Your task to perform on an android device: turn on location history Image 0: 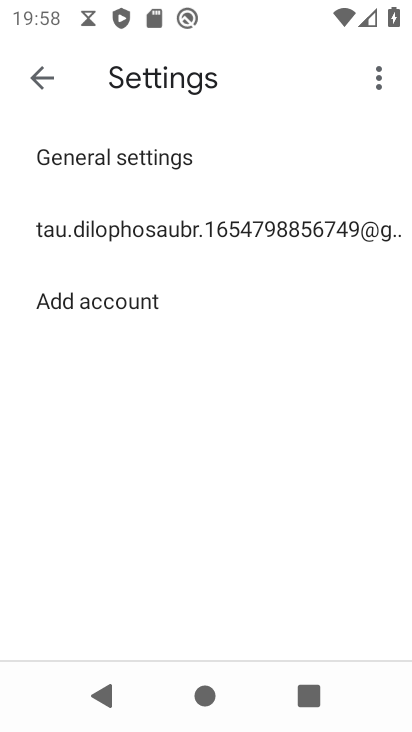
Step 0: press home button
Your task to perform on an android device: turn on location history Image 1: 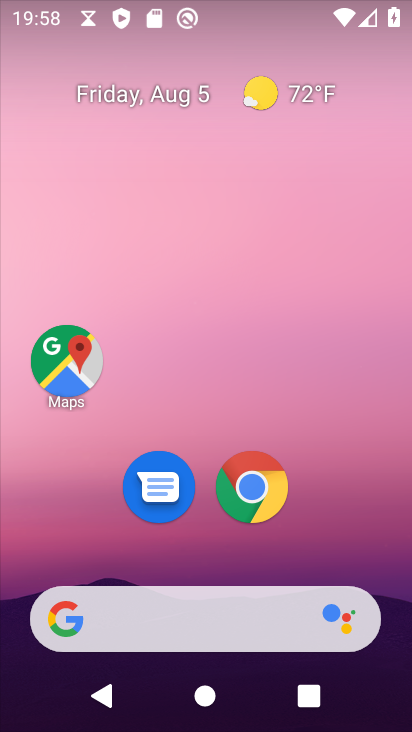
Step 1: click (59, 358)
Your task to perform on an android device: turn on location history Image 2: 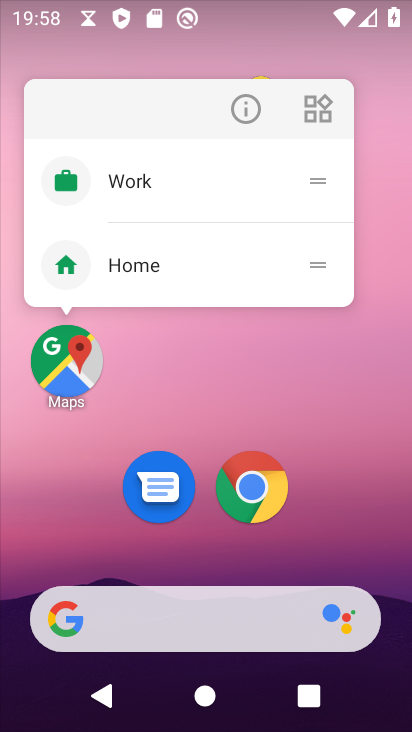
Step 2: click (63, 356)
Your task to perform on an android device: turn on location history Image 3: 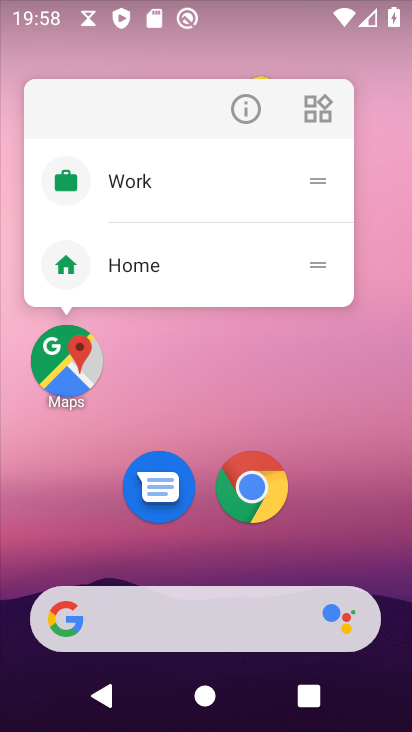
Step 3: click (66, 374)
Your task to perform on an android device: turn on location history Image 4: 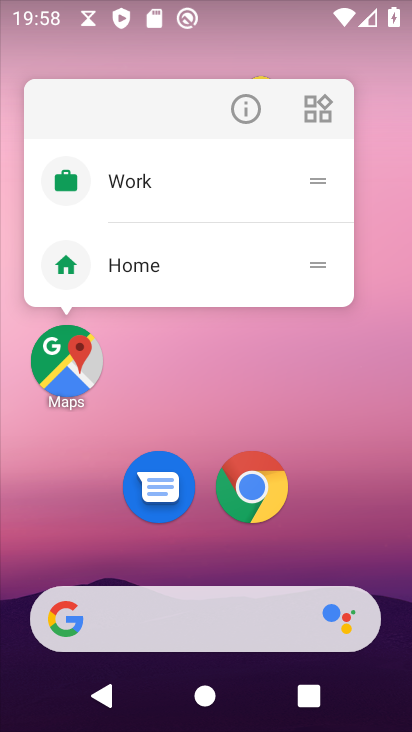
Step 4: click (66, 376)
Your task to perform on an android device: turn on location history Image 5: 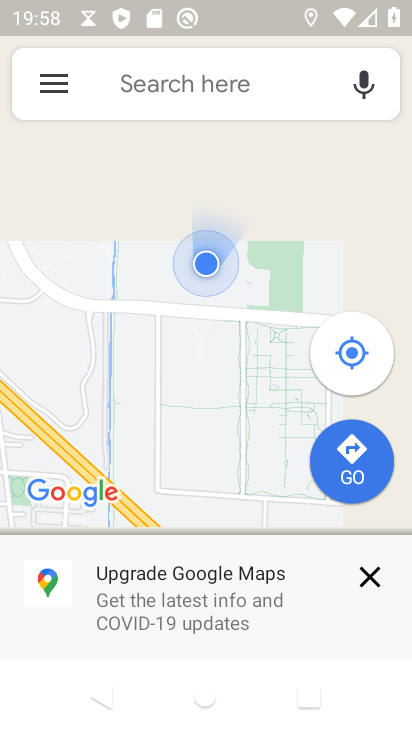
Step 5: click (57, 76)
Your task to perform on an android device: turn on location history Image 6: 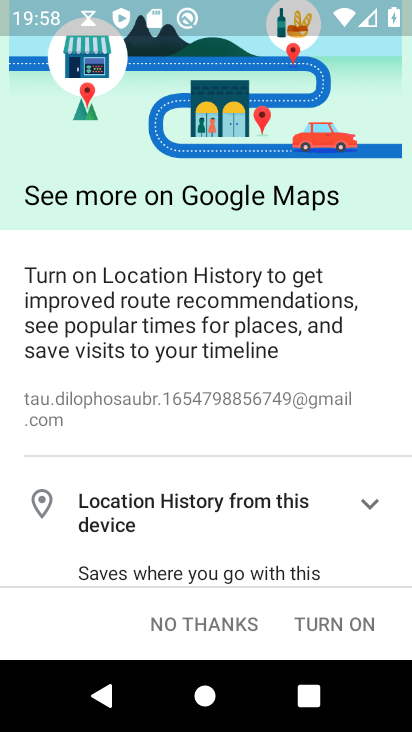
Step 6: click (213, 621)
Your task to perform on an android device: turn on location history Image 7: 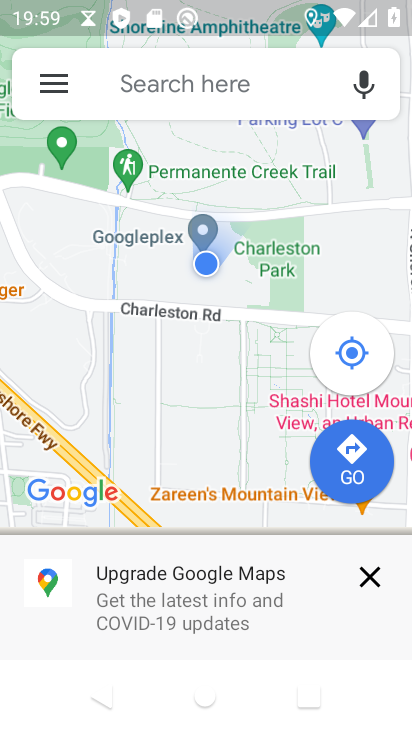
Step 7: click (57, 82)
Your task to perform on an android device: turn on location history Image 8: 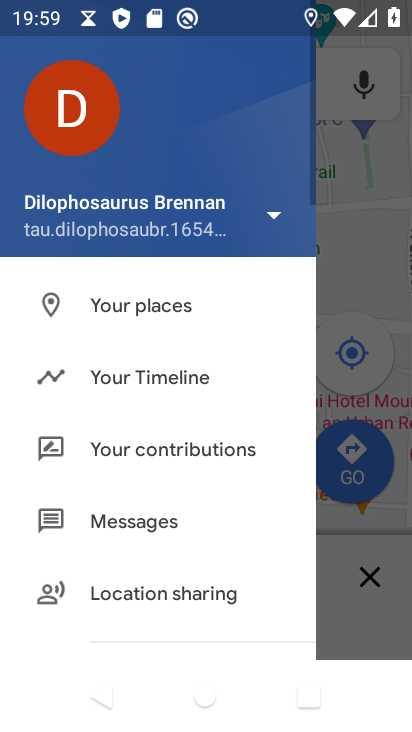
Step 8: click (178, 370)
Your task to perform on an android device: turn on location history Image 9: 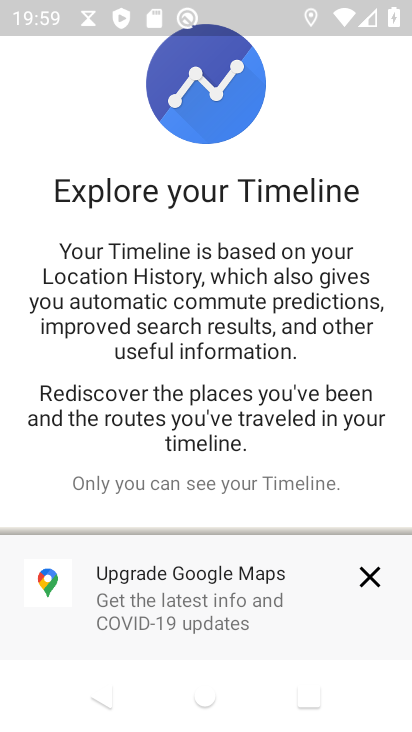
Step 9: click (367, 566)
Your task to perform on an android device: turn on location history Image 10: 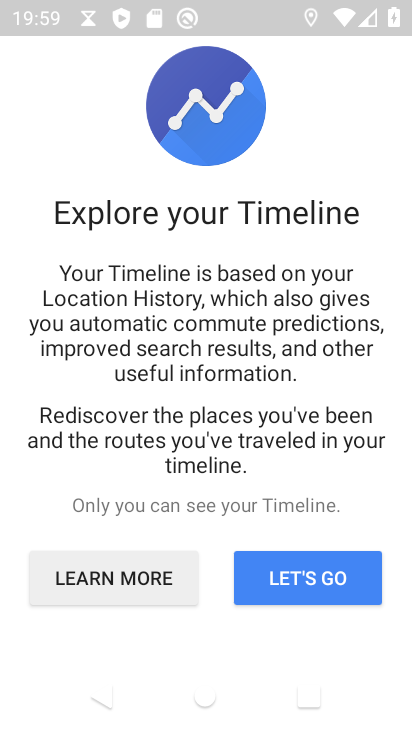
Step 10: click (297, 580)
Your task to perform on an android device: turn on location history Image 11: 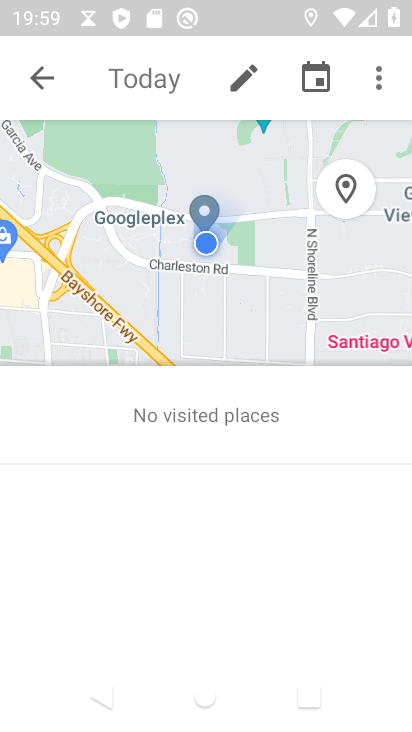
Step 11: click (378, 82)
Your task to perform on an android device: turn on location history Image 12: 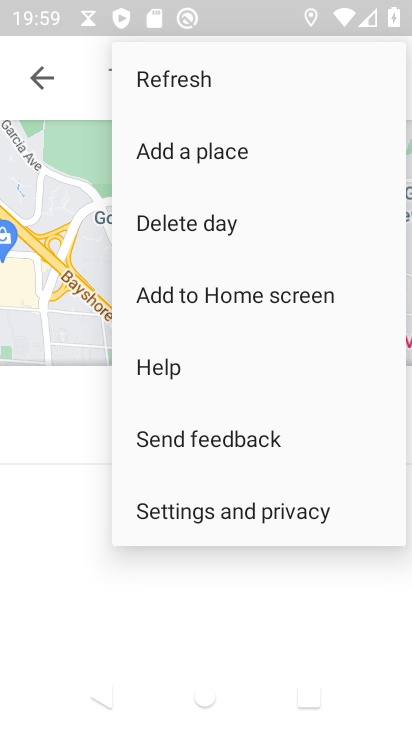
Step 12: click (253, 511)
Your task to perform on an android device: turn on location history Image 13: 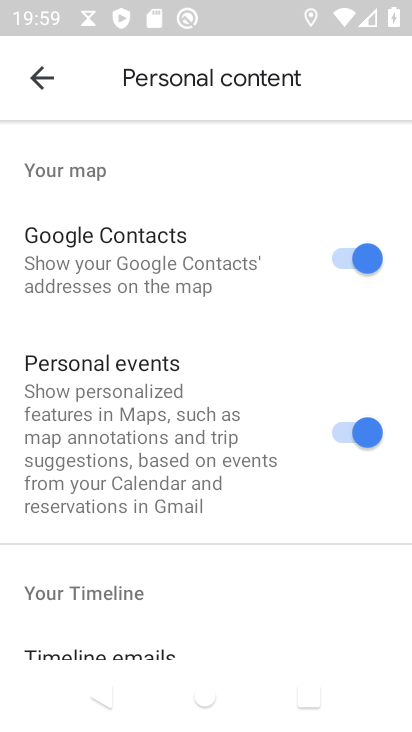
Step 13: drag from (208, 562) to (276, 85)
Your task to perform on an android device: turn on location history Image 14: 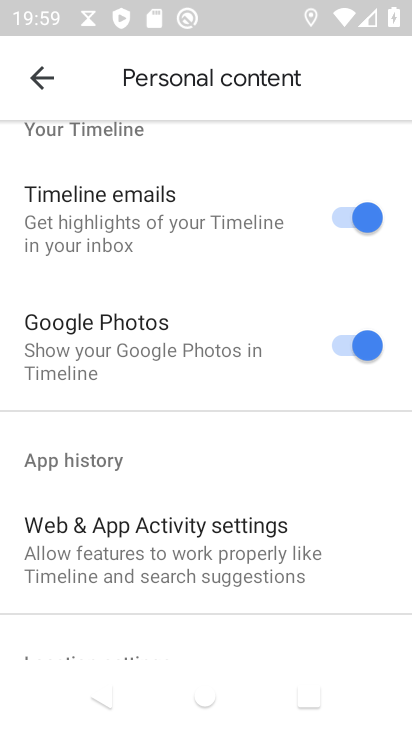
Step 14: drag from (242, 510) to (243, 124)
Your task to perform on an android device: turn on location history Image 15: 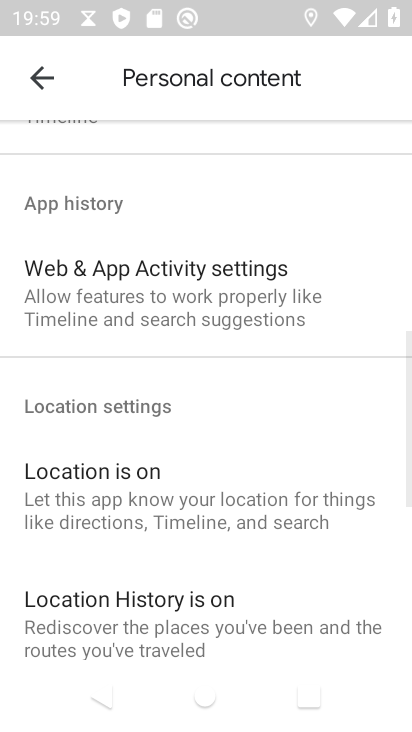
Step 15: drag from (268, 509) to (261, 302)
Your task to perform on an android device: turn on location history Image 16: 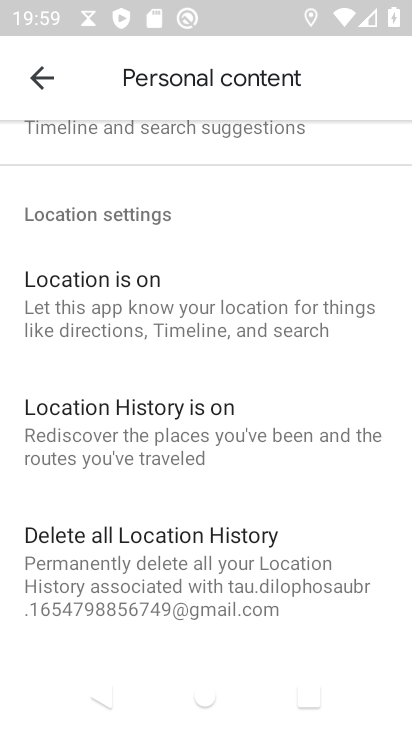
Step 16: click (178, 419)
Your task to perform on an android device: turn on location history Image 17: 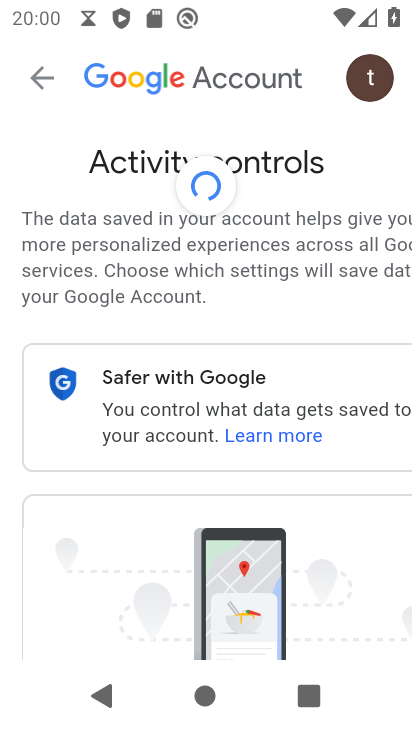
Step 17: task complete